Your task to perform on an android device: Check the news Image 0: 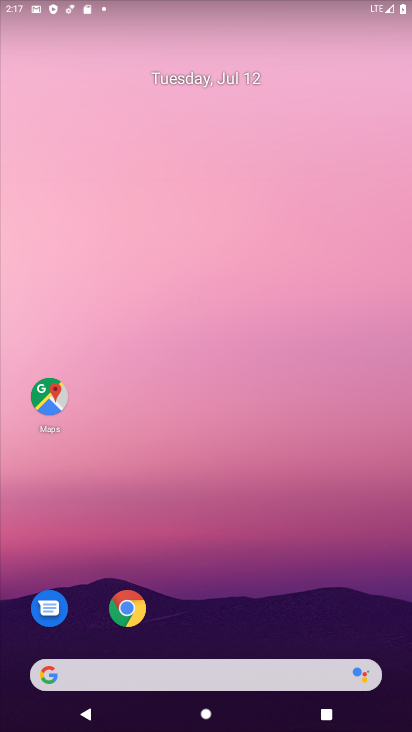
Step 0: click (162, 672)
Your task to perform on an android device: Check the news Image 1: 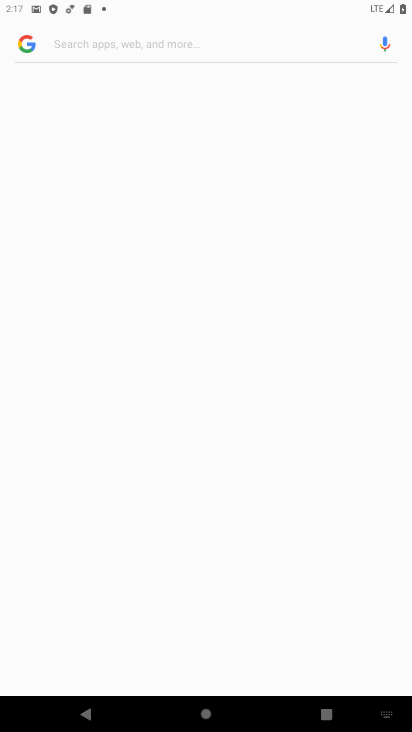
Step 1: click (162, 672)
Your task to perform on an android device: Check the news Image 2: 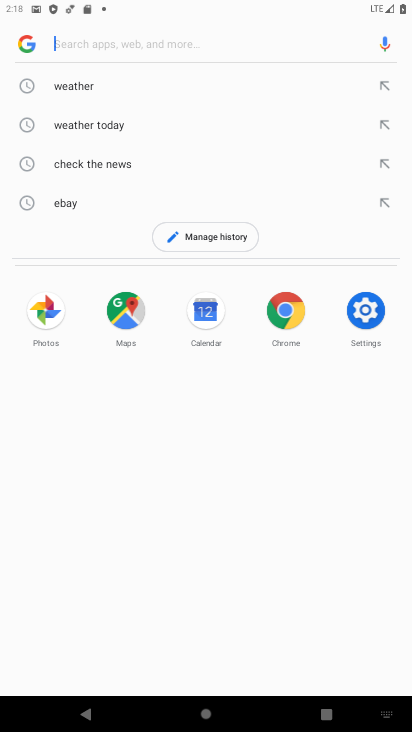
Step 2: type "news"
Your task to perform on an android device: Check the news Image 3: 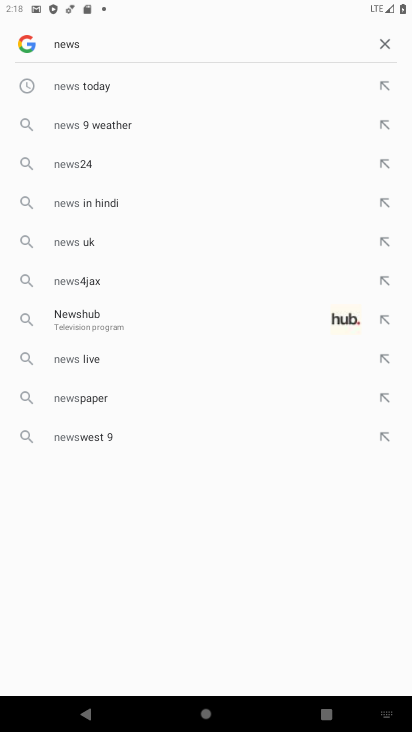
Step 3: click (104, 85)
Your task to perform on an android device: Check the news Image 4: 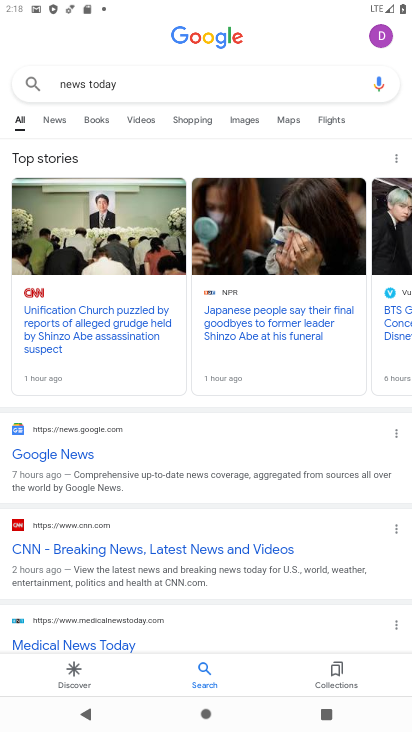
Step 4: task complete